Your task to perform on an android device: Open location settings Image 0: 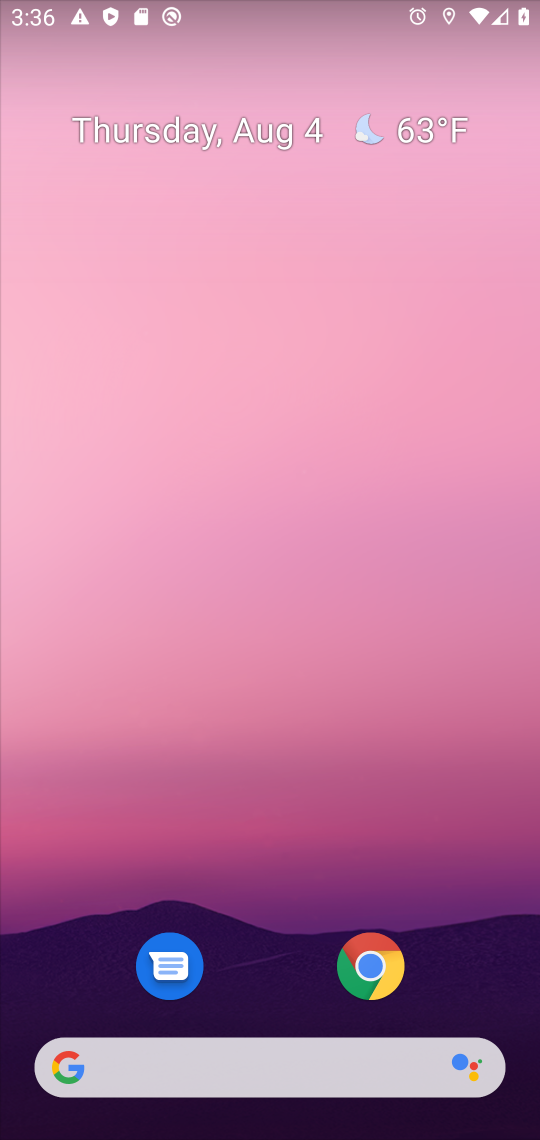
Step 0: press home button
Your task to perform on an android device: Open location settings Image 1: 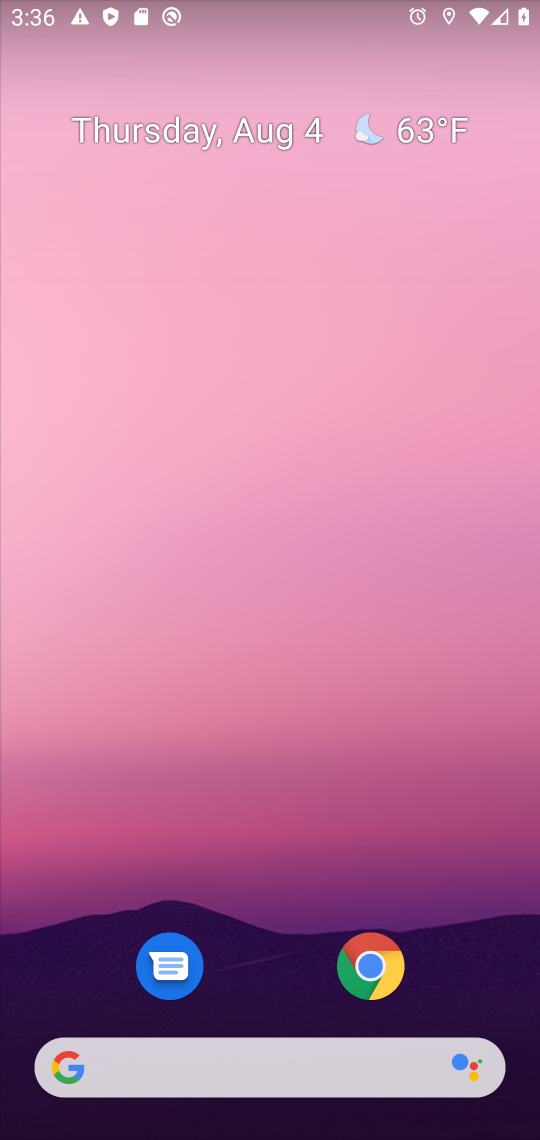
Step 1: drag from (299, 969) to (262, 349)
Your task to perform on an android device: Open location settings Image 2: 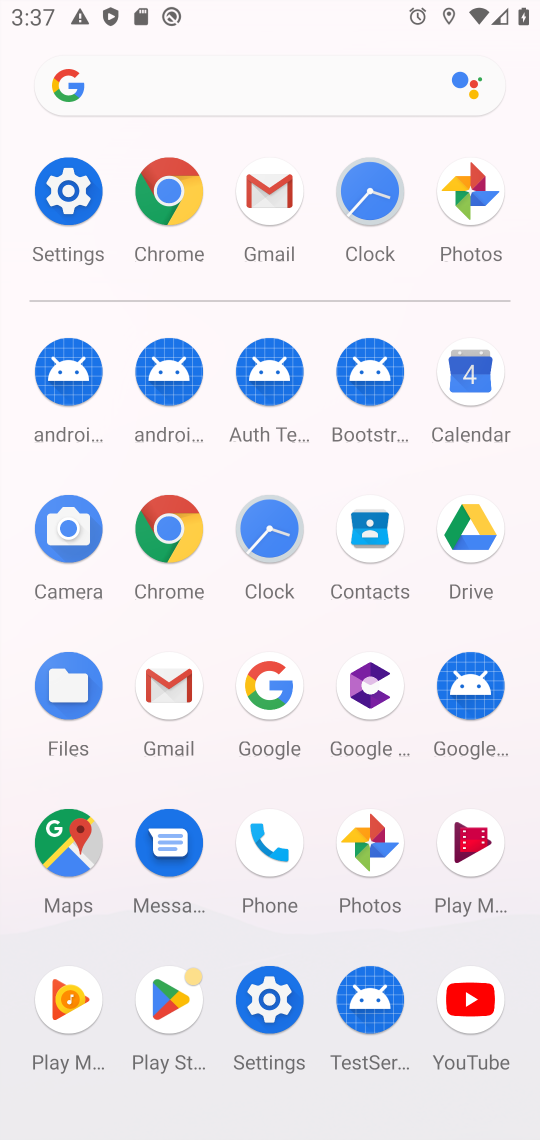
Step 2: click (60, 220)
Your task to perform on an android device: Open location settings Image 3: 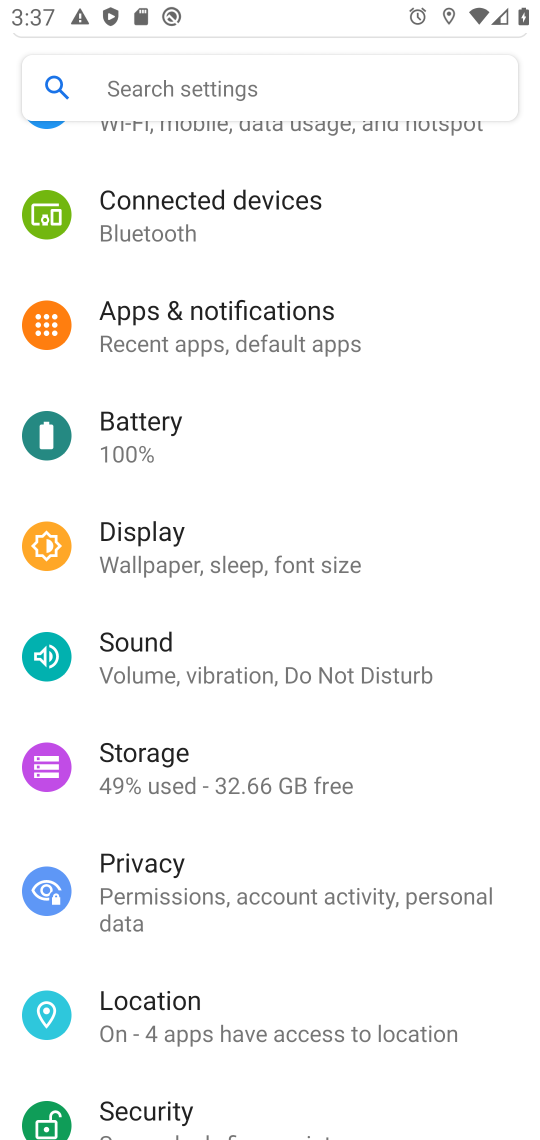
Step 3: click (167, 1032)
Your task to perform on an android device: Open location settings Image 4: 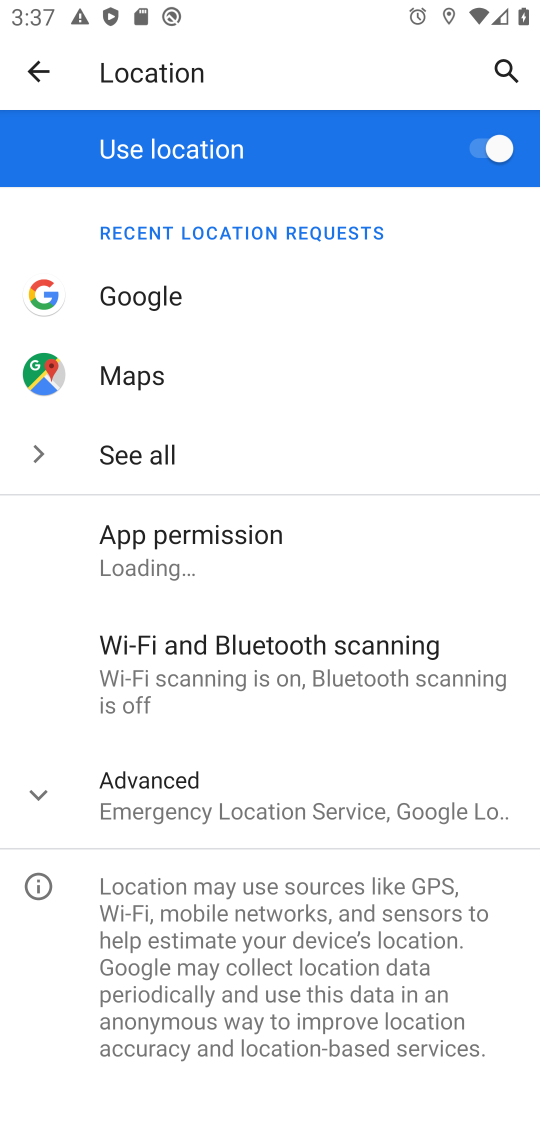
Step 4: task complete